Your task to perform on an android device: Open notification settings Image 0: 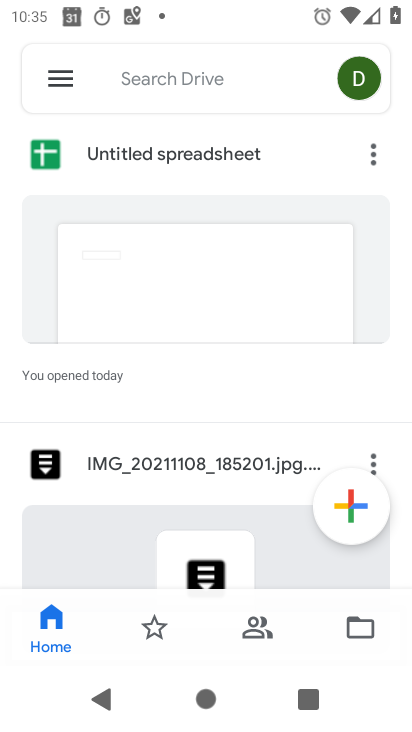
Step 0: press home button
Your task to perform on an android device: Open notification settings Image 1: 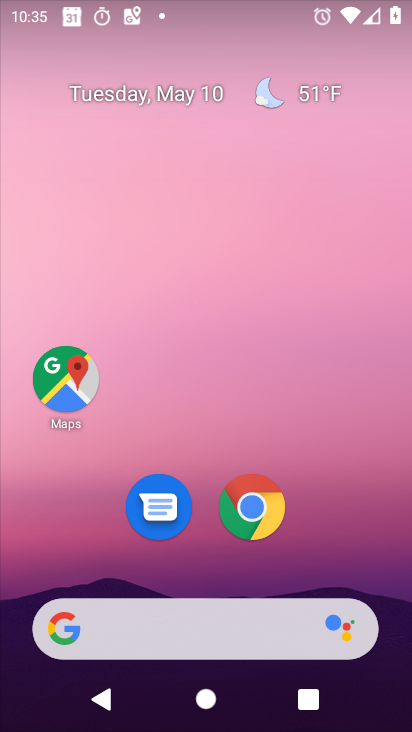
Step 1: drag from (180, 569) to (201, 220)
Your task to perform on an android device: Open notification settings Image 2: 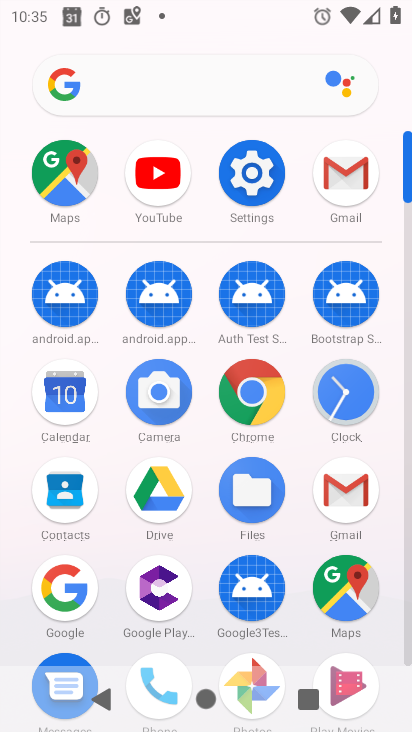
Step 2: click (259, 189)
Your task to perform on an android device: Open notification settings Image 3: 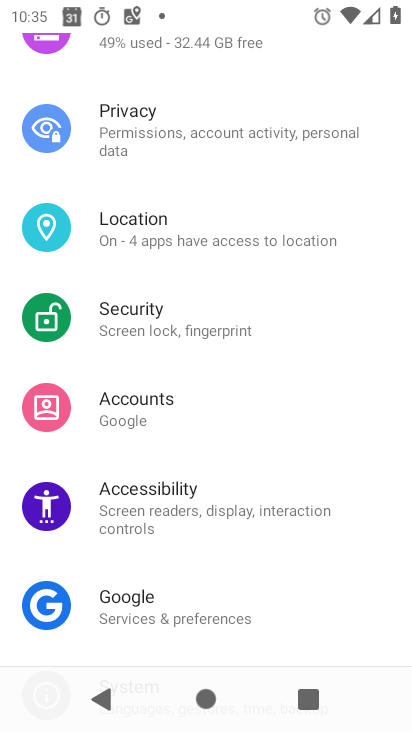
Step 3: drag from (293, 149) to (179, 577)
Your task to perform on an android device: Open notification settings Image 4: 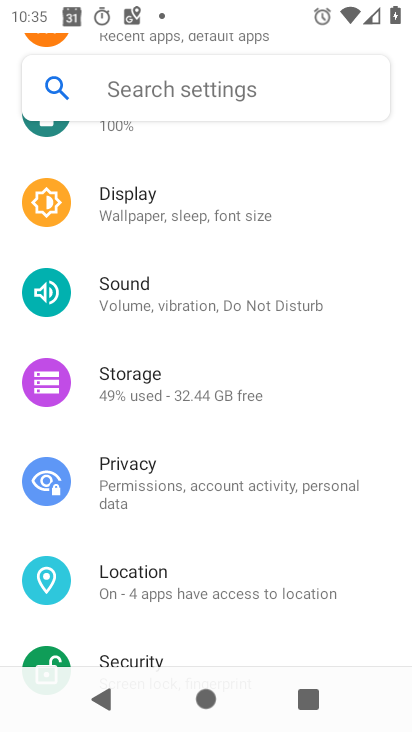
Step 4: drag from (168, 180) to (149, 561)
Your task to perform on an android device: Open notification settings Image 5: 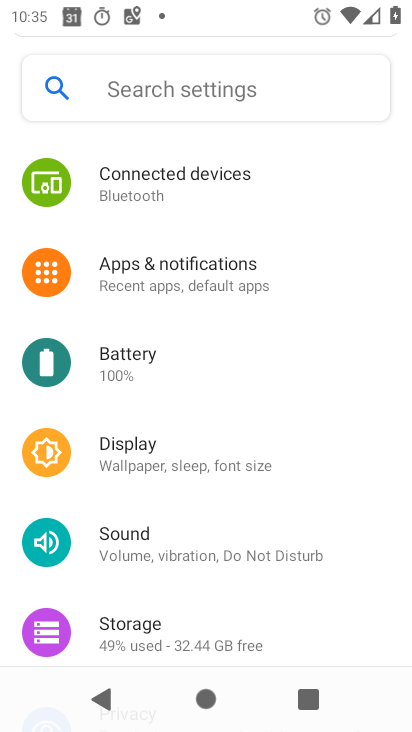
Step 5: click (211, 282)
Your task to perform on an android device: Open notification settings Image 6: 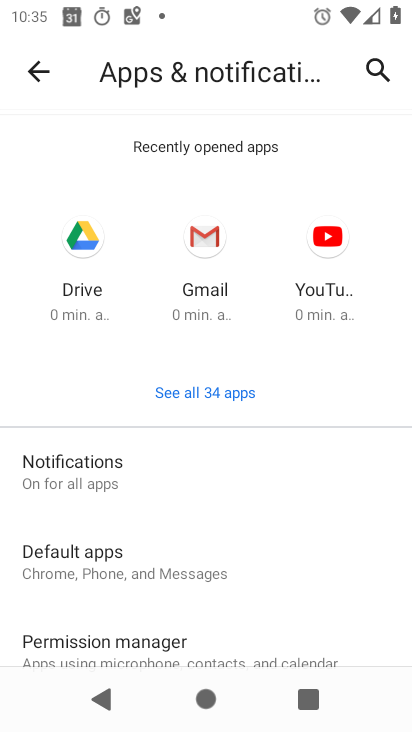
Step 6: task complete